Your task to perform on an android device: Open Yahoo.com Image 0: 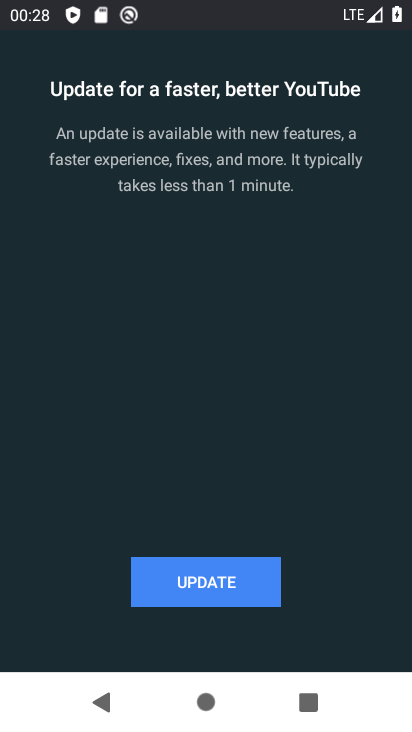
Step 0: click (296, 93)
Your task to perform on an android device: Open Yahoo.com Image 1: 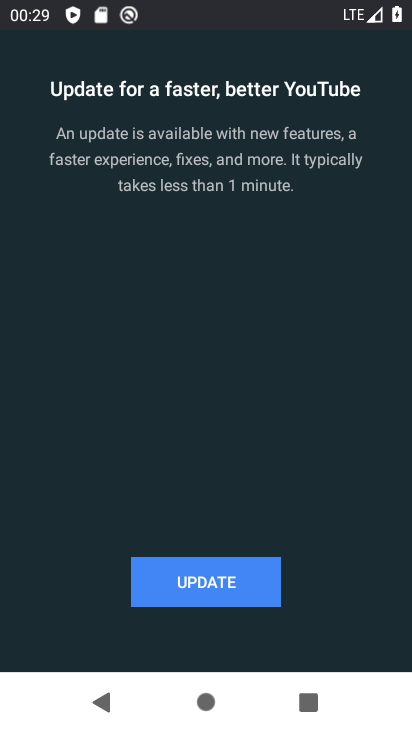
Step 1: press home button
Your task to perform on an android device: Open Yahoo.com Image 2: 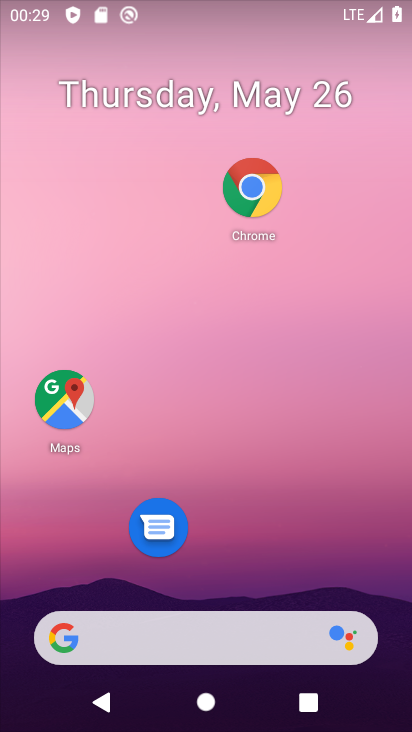
Step 2: click (209, 647)
Your task to perform on an android device: Open Yahoo.com Image 3: 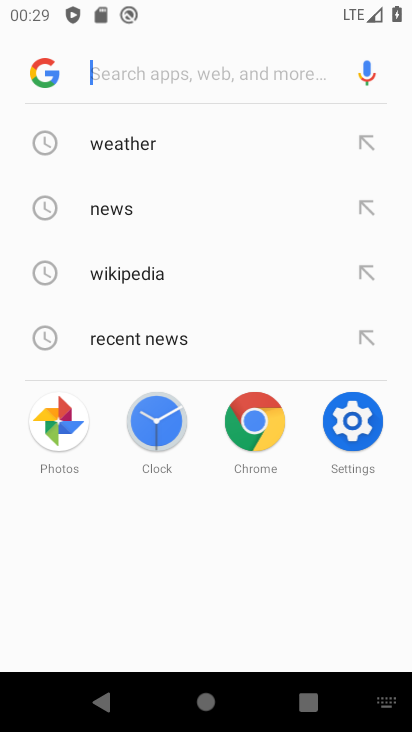
Step 3: type "yahoo.com"
Your task to perform on an android device: Open Yahoo.com Image 4: 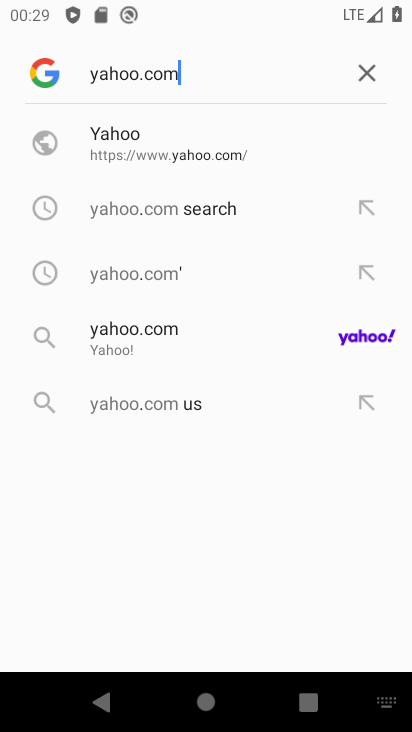
Step 4: click (246, 157)
Your task to perform on an android device: Open Yahoo.com Image 5: 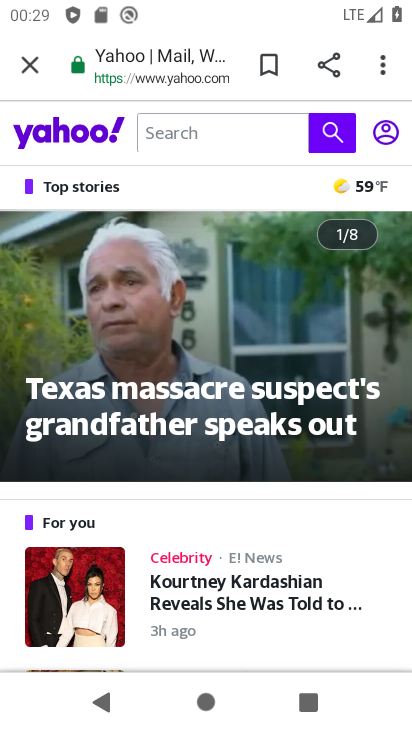
Step 5: task complete